Your task to perform on an android device: Do I have any events tomorrow? Image 0: 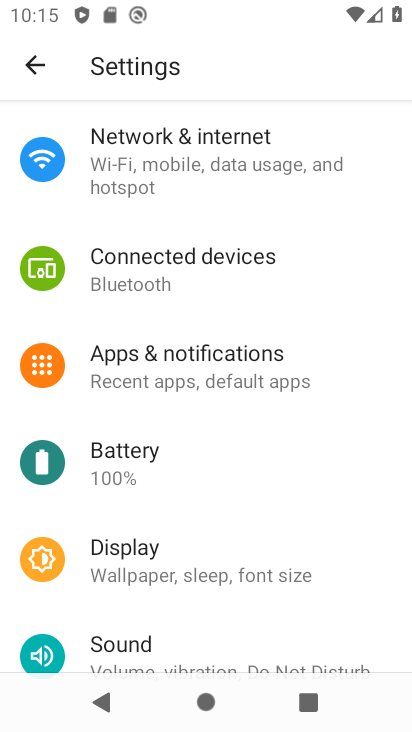
Step 0: press home button
Your task to perform on an android device: Do I have any events tomorrow? Image 1: 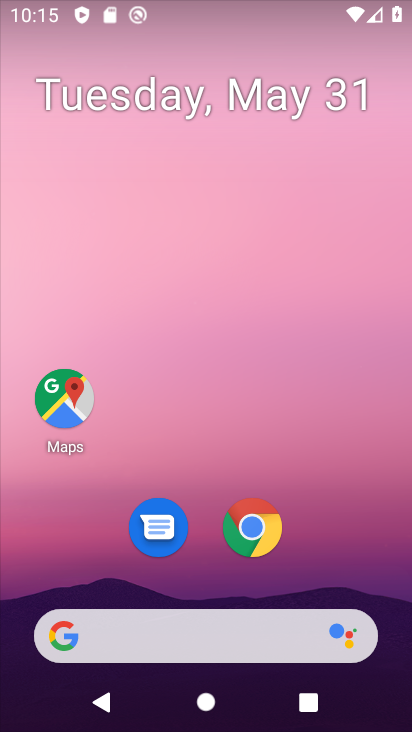
Step 1: drag from (335, 601) to (291, 57)
Your task to perform on an android device: Do I have any events tomorrow? Image 2: 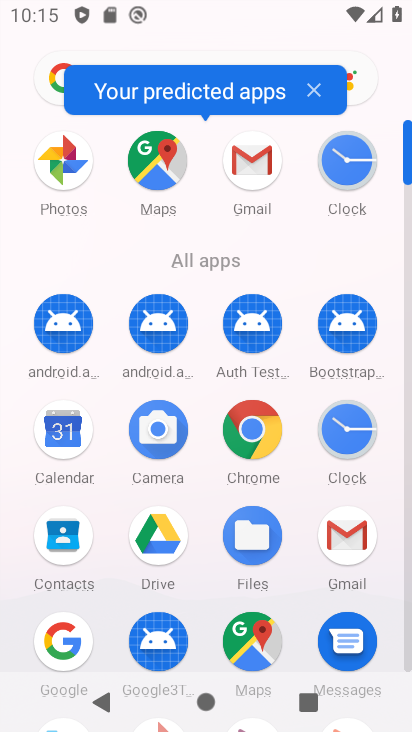
Step 2: click (75, 433)
Your task to perform on an android device: Do I have any events tomorrow? Image 3: 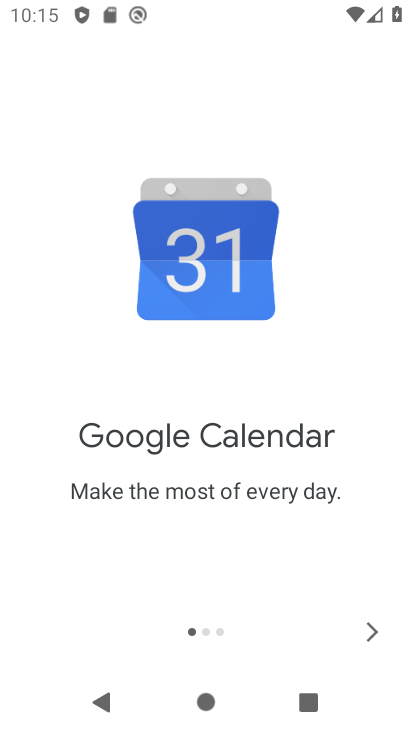
Step 3: click (369, 646)
Your task to perform on an android device: Do I have any events tomorrow? Image 4: 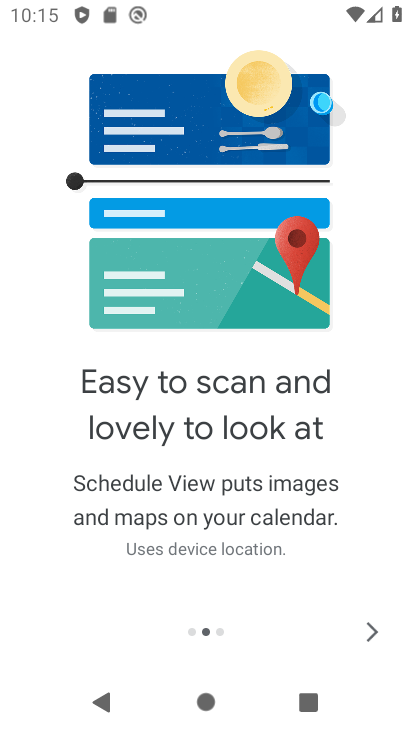
Step 4: click (369, 646)
Your task to perform on an android device: Do I have any events tomorrow? Image 5: 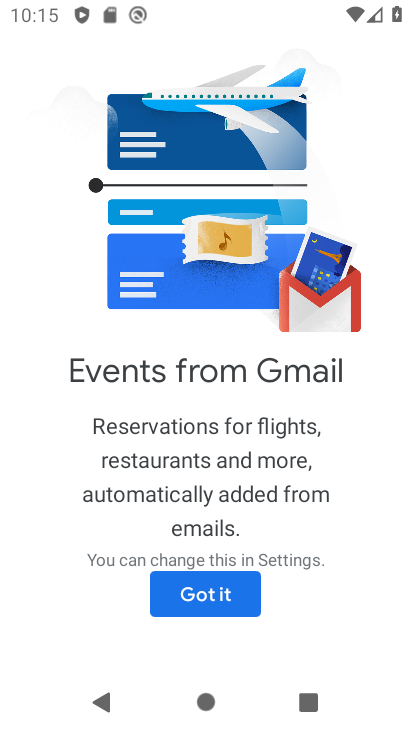
Step 5: click (224, 599)
Your task to perform on an android device: Do I have any events tomorrow? Image 6: 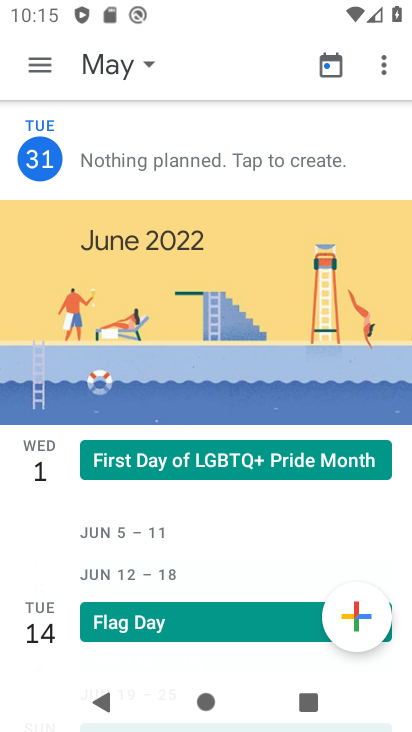
Step 6: click (42, 73)
Your task to perform on an android device: Do I have any events tomorrow? Image 7: 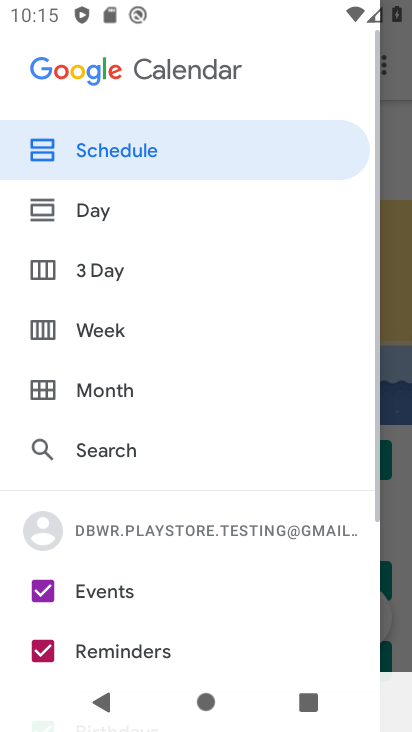
Step 7: drag from (196, 612) to (182, 136)
Your task to perform on an android device: Do I have any events tomorrow? Image 8: 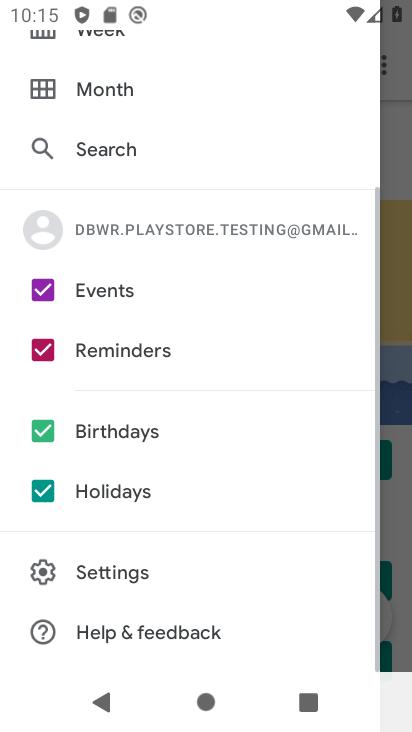
Step 8: click (42, 495)
Your task to perform on an android device: Do I have any events tomorrow? Image 9: 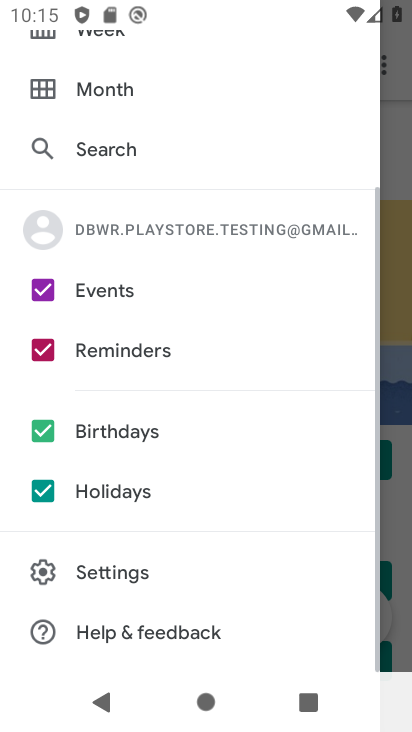
Step 9: click (34, 434)
Your task to perform on an android device: Do I have any events tomorrow? Image 10: 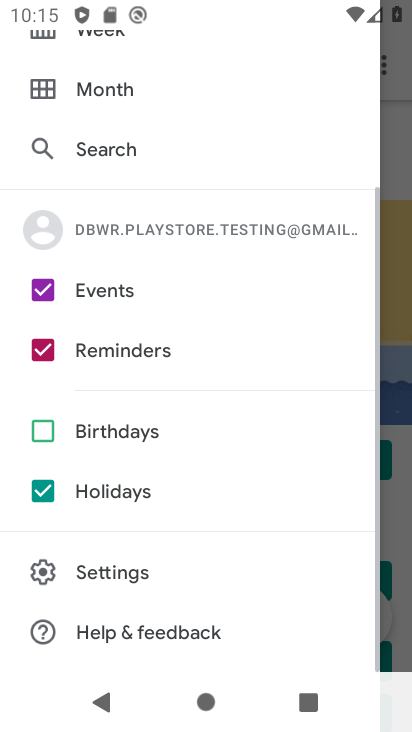
Step 10: click (46, 351)
Your task to perform on an android device: Do I have any events tomorrow? Image 11: 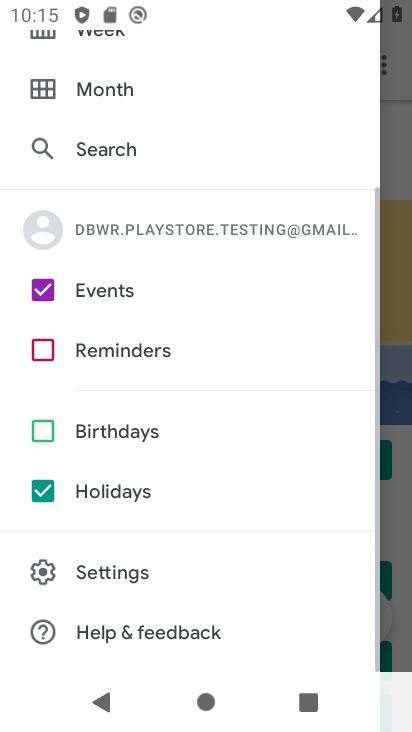
Step 11: click (46, 492)
Your task to perform on an android device: Do I have any events tomorrow? Image 12: 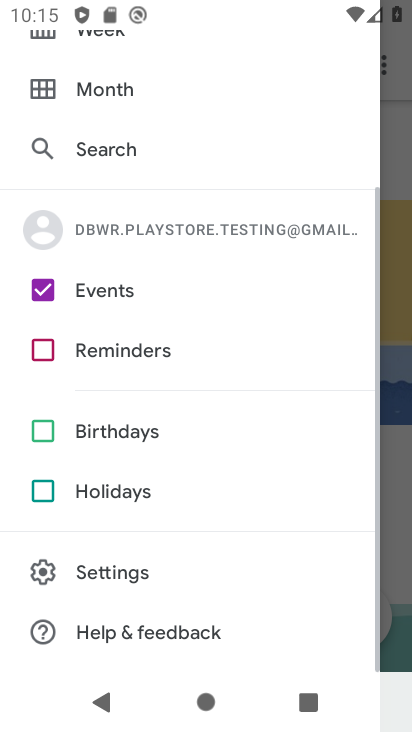
Step 12: drag from (145, 114) to (131, 469)
Your task to perform on an android device: Do I have any events tomorrow? Image 13: 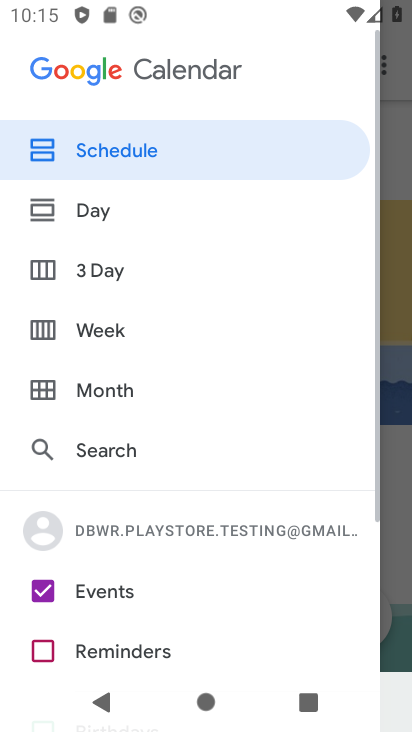
Step 13: click (119, 216)
Your task to perform on an android device: Do I have any events tomorrow? Image 14: 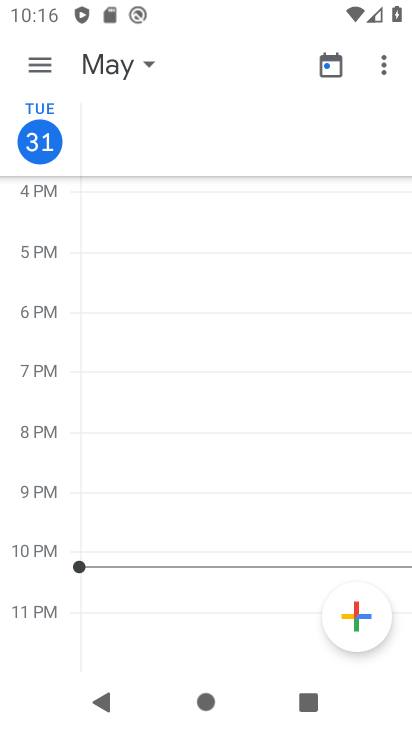
Step 14: click (120, 74)
Your task to perform on an android device: Do I have any events tomorrow? Image 15: 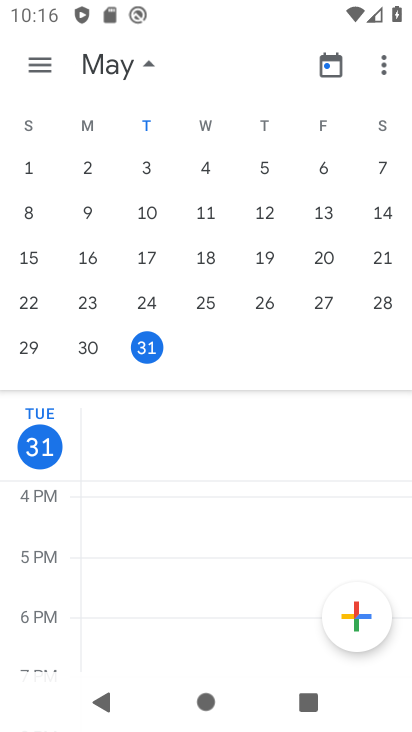
Step 15: drag from (388, 243) to (40, 249)
Your task to perform on an android device: Do I have any events tomorrow? Image 16: 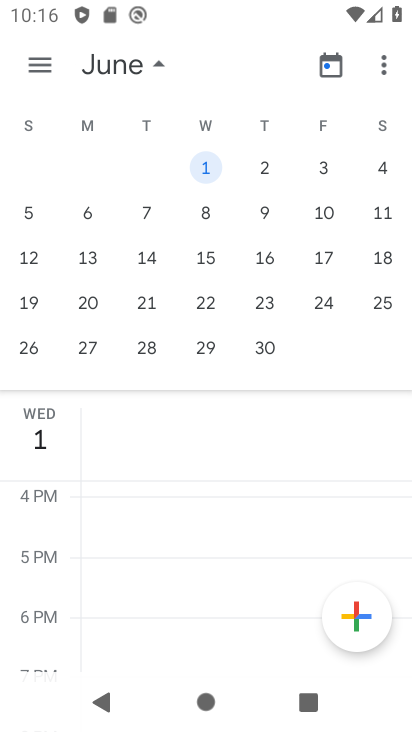
Step 16: click (270, 171)
Your task to perform on an android device: Do I have any events tomorrow? Image 17: 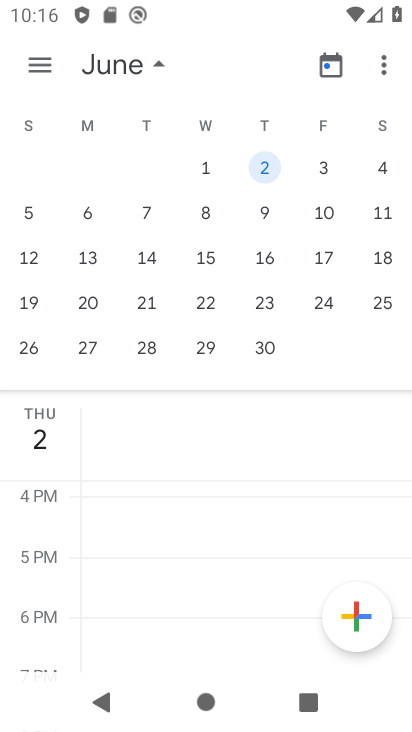
Step 17: click (130, 71)
Your task to perform on an android device: Do I have any events tomorrow? Image 18: 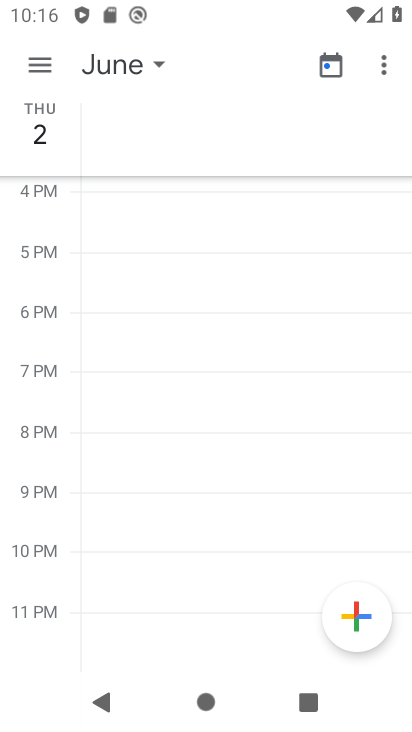
Step 18: task complete